Your task to perform on an android device: Show me the alarms in the clock app Image 0: 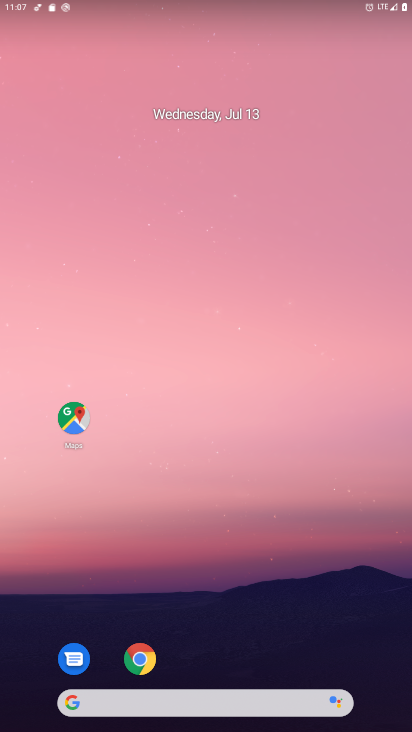
Step 0: drag from (205, 668) to (207, 136)
Your task to perform on an android device: Show me the alarms in the clock app Image 1: 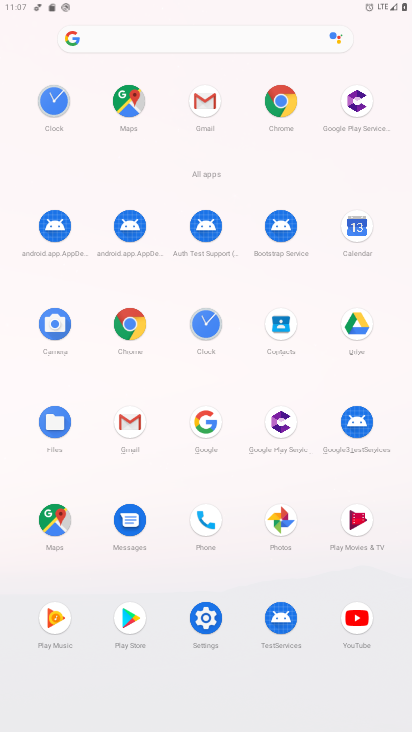
Step 1: click (205, 315)
Your task to perform on an android device: Show me the alarms in the clock app Image 2: 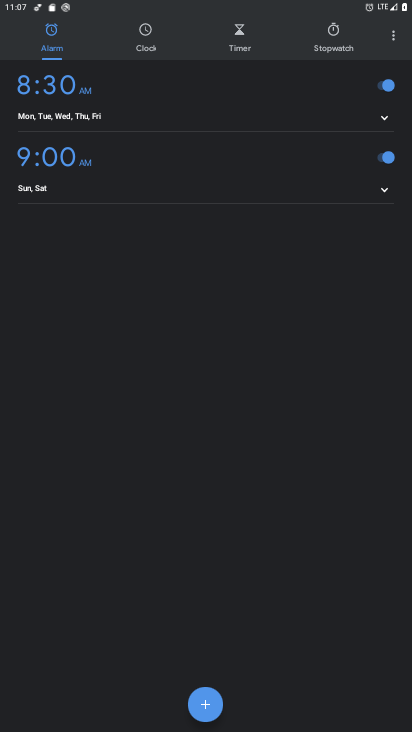
Step 2: click (47, 27)
Your task to perform on an android device: Show me the alarms in the clock app Image 3: 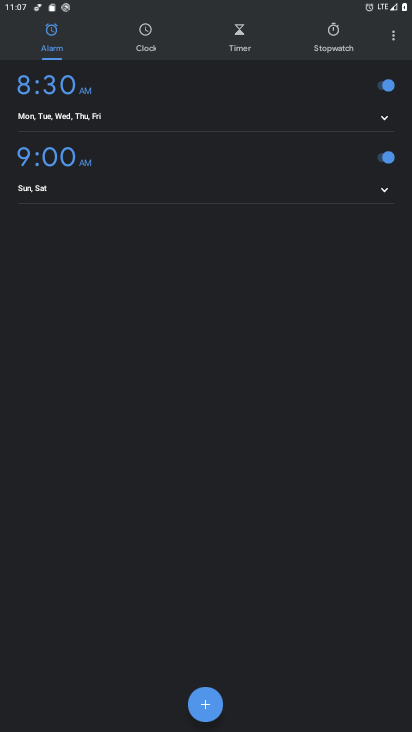
Step 3: task complete